Your task to perform on an android device: Open calendar and show me the fourth week of next month Image 0: 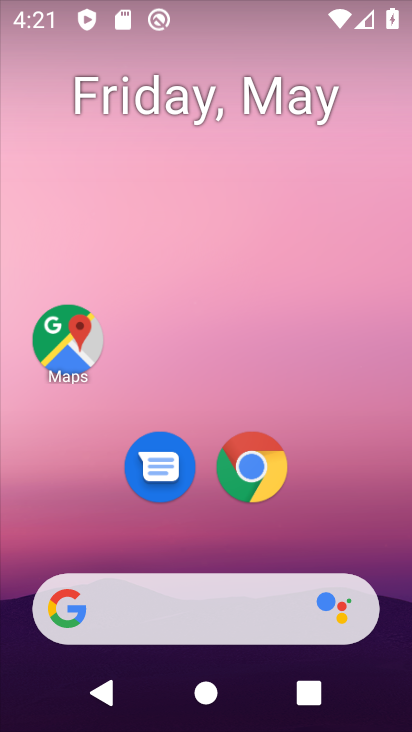
Step 0: drag from (319, 449) to (285, 55)
Your task to perform on an android device: Open calendar and show me the fourth week of next month Image 1: 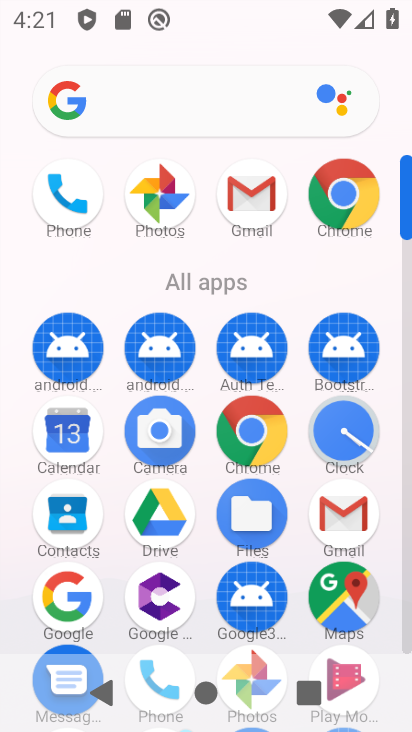
Step 1: drag from (297, 612) to (327, 185)
Your task to perform on an android device: Open calendar and show me the fourth week of next month Image 2: 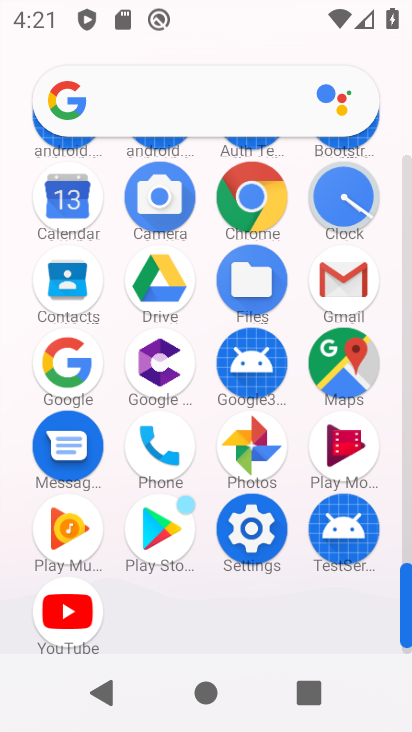
Step 2: click (64, 195)
Your task to perform on an android device: Open calendar and show me the fourth week of next month Image 3: 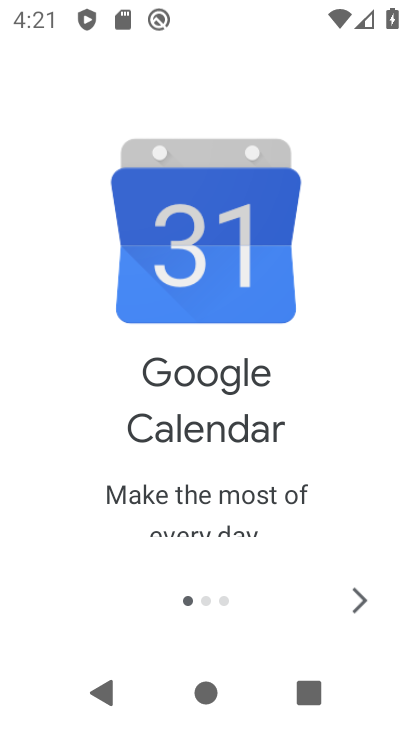
Step 3: click (371, 602)
Your task to perform on an android device: Open calendar and show me the fourth week of next month Image 4: 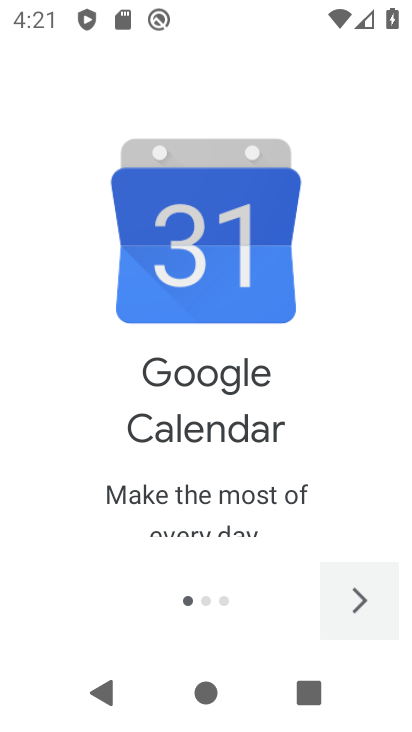
Step 4: click (371, 602)
Your task to perform on an android device: Open calendar and show me the fourth week of next month Image 5: 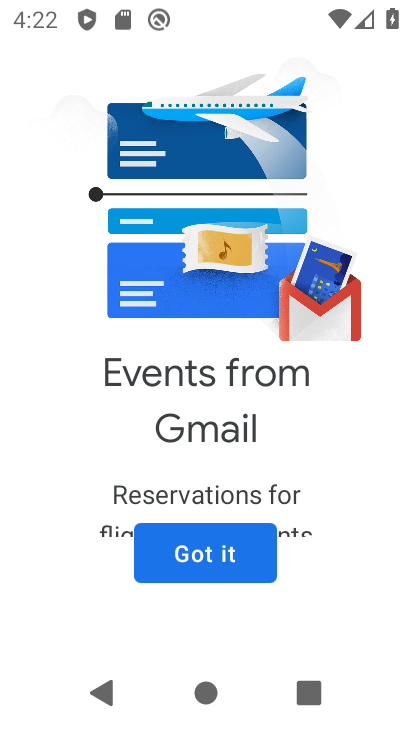
Step 5: click (200, 556)
Your task to perform on an android device: Open calendar and show me the fourth week of next month Image 6: 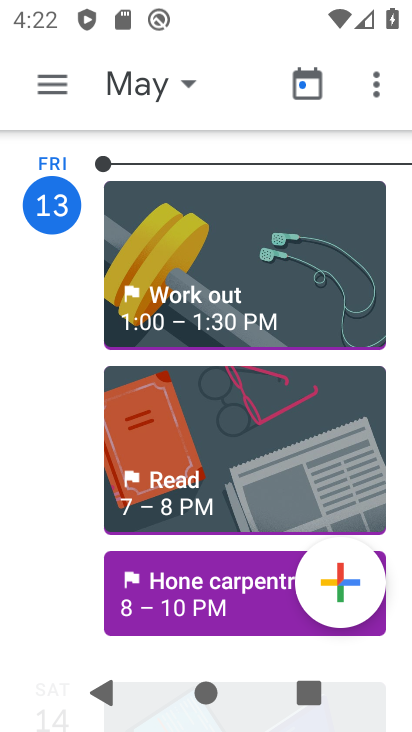
Step 6: click (141, 74)
Your task to perform on an android device: Open calendar and show me the fourth week of next month Image 7: 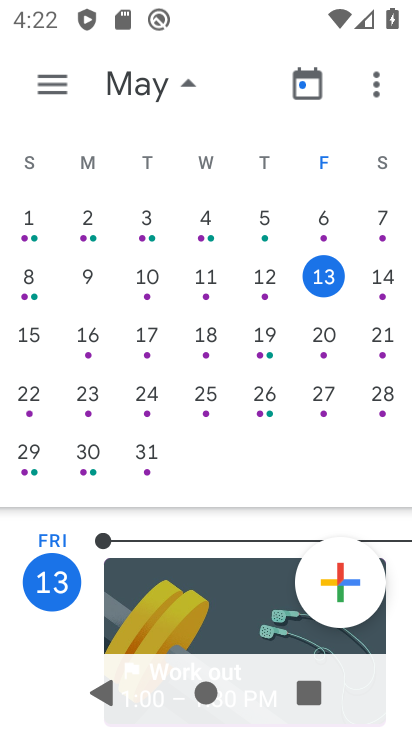
Step 7: drag from (386, 351) to (27, 358)
Your task to perform on an android device: Open calendar and show me the fourth week of next month Image 8: 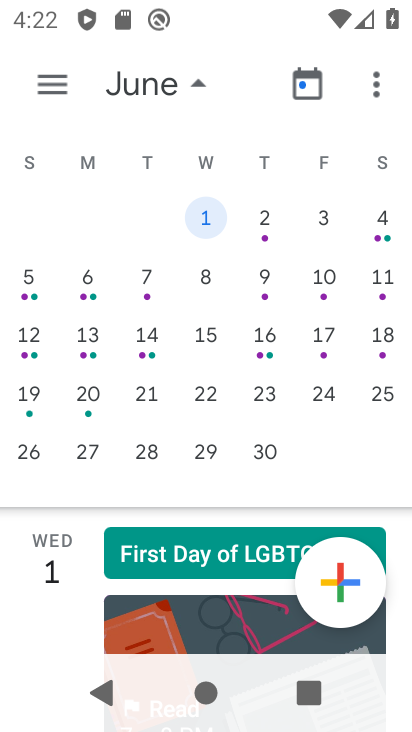
Step 8: click (29, 460)
Your task to perform on an android device: Open calendar and show me the fourth week of next month Image 9: 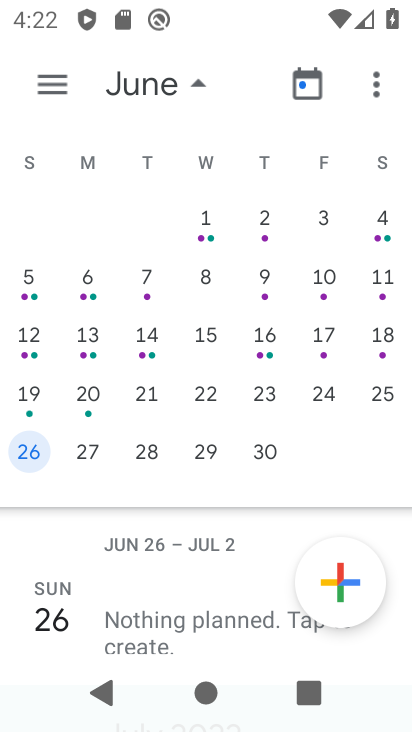
Step 9: task complete